Your task to perform on an android device: turn off data saver in the chrome app Image 0: 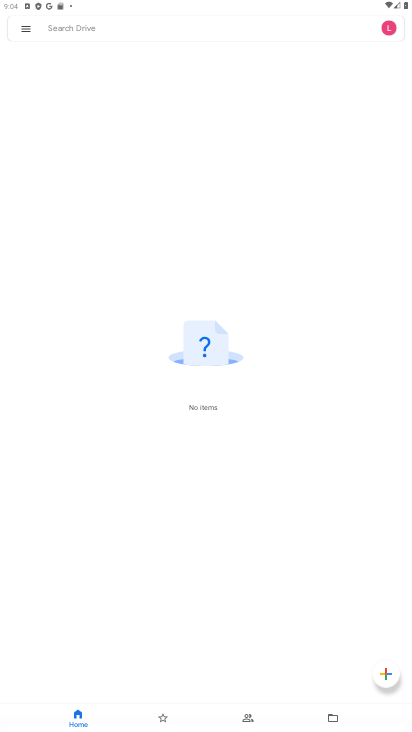
Step 0: press home button
Your task to perform on an android device: turn off data saver in the chrome app Image 1: 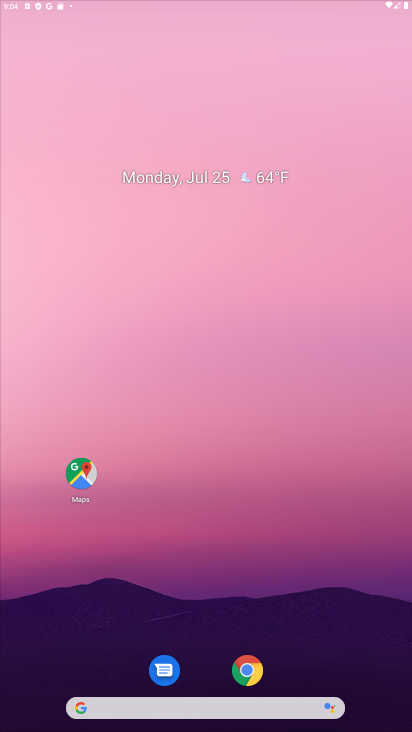
Step 1: drag from (352, 634) to (244, 24)
Your task to perform on an android device: turn off data saver in the chrome app Image 2: 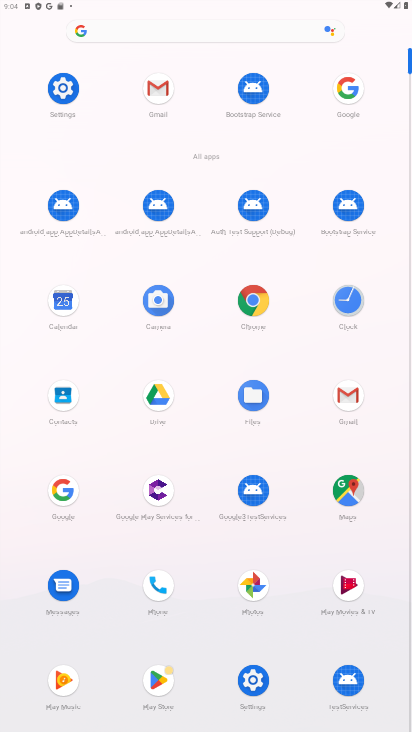
Step 2: click (243, 320)
Your task to perform on an android device: turn off data saver in the chrome app Image 3: 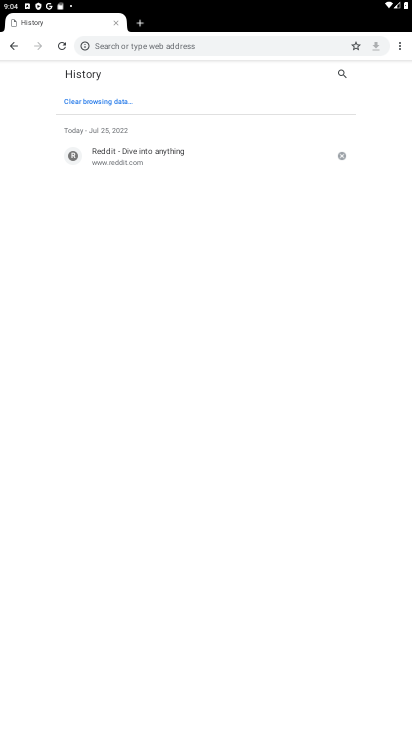
Step 3: click (255, 302)
Your task to perform on an android device: turn off data saver in the chrome app Image 4: 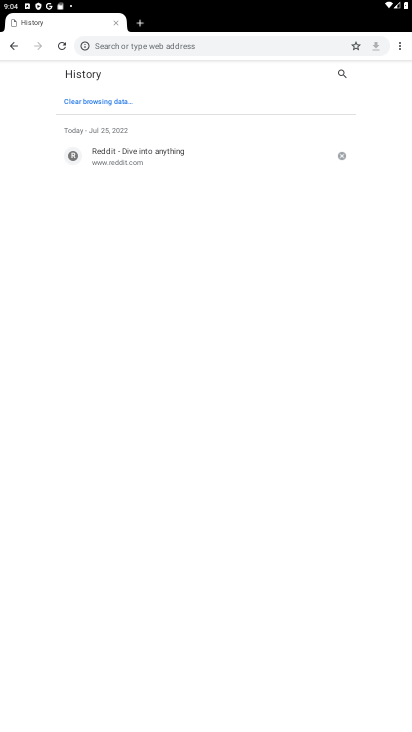
Step 4: click (395, 44)
Your task to perform on an android device: turn off data saver in the chrome app Image 5: 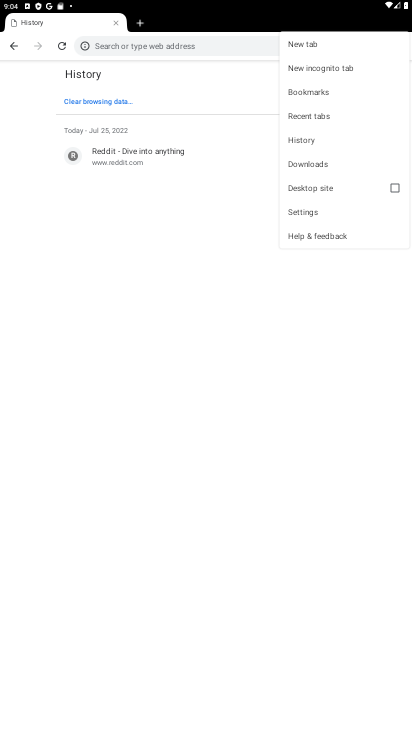
Step 5: click (305, 213)
Your task to perform on an android device: turn off data saver in the chrome app Image 6: 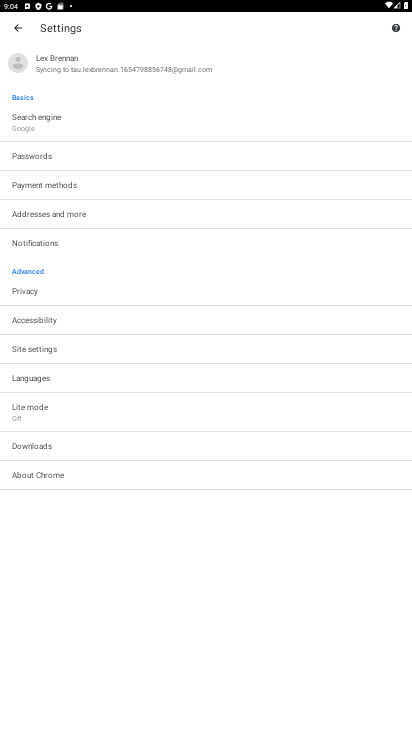
Step 6: click (52, 422)
Your task to perform on an android device: turn off data saver in the chrome app Image 7: 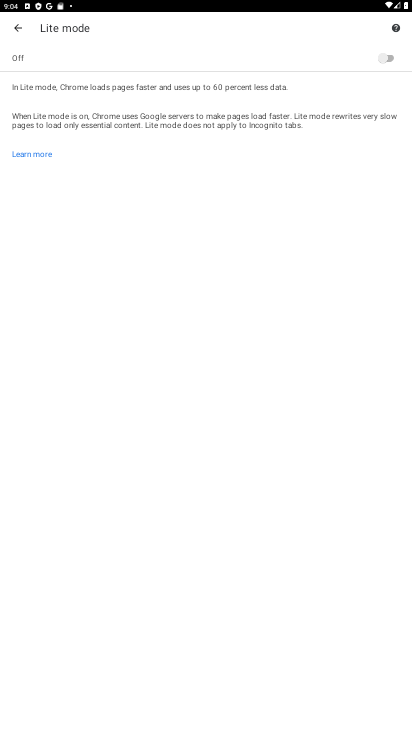
Step 7: task complete